Your task to perform on an android device: Open settings Image 0: 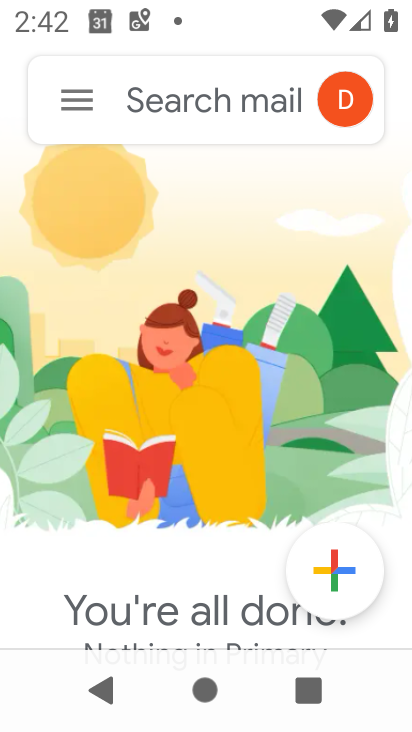
Step 0: press home button
Your task to perform on an android device: Open settings Image 1: 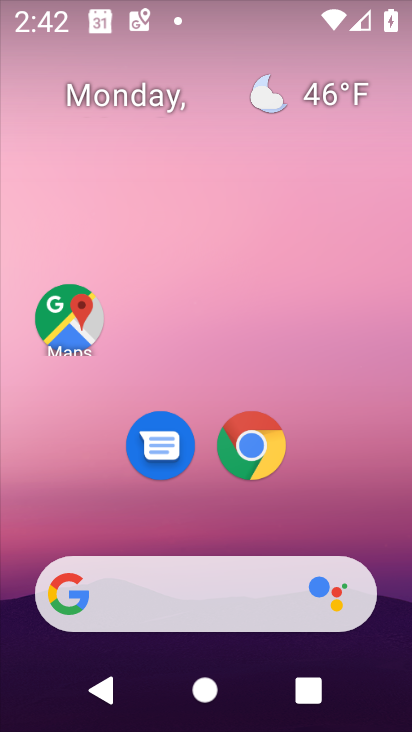
Step 1: drag from (308, 495) to (319, 136)
Your task to perform on an android device: Open settings Image 2: 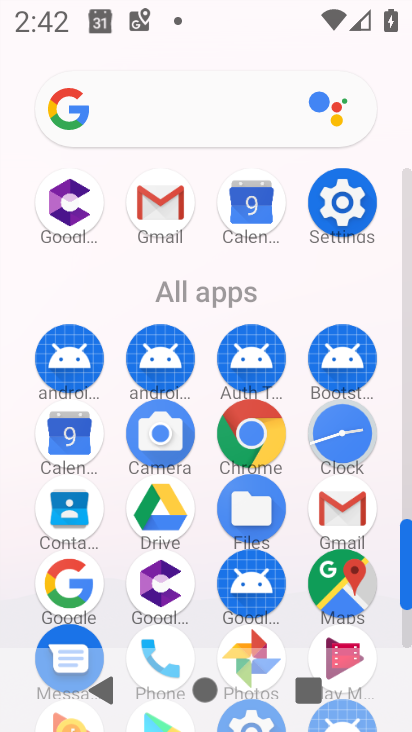
Step 2: click (348, 202)
Your task to perform on an android device: Open settings Image 3: 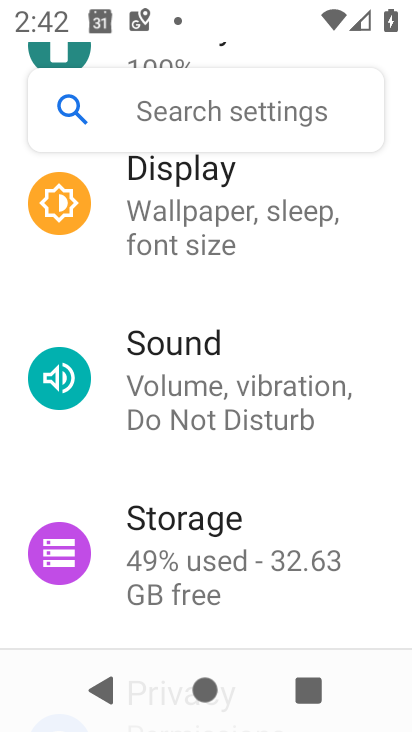
Step 3: task complete